Your task to perform on an android device: toggle show notifications on the lock screen Image 0: 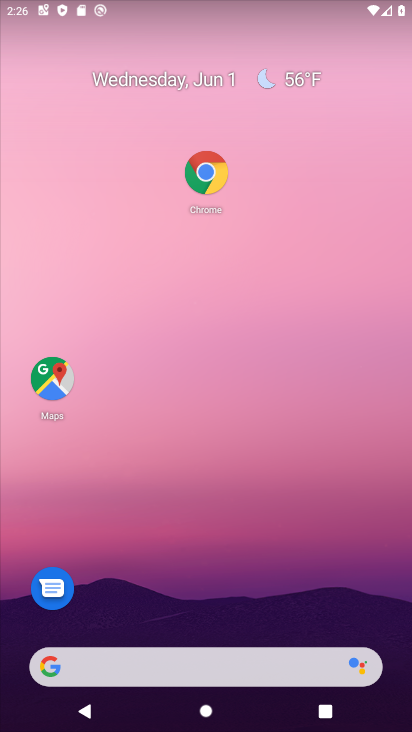
Step 0: drag from (214, 599) to (206, 8)
Your task to perform on an android device: toggle show notifications on the lock screen Image 1: 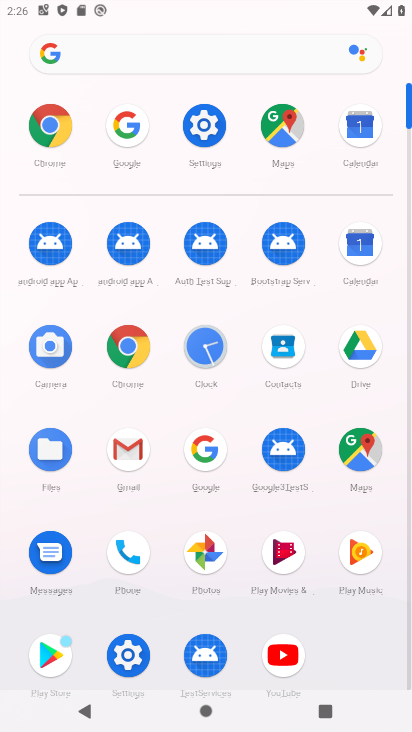
Step 1: click (202, 108)
Your task to perform on an android device: toggle show notifications on the lock screen Image 2: 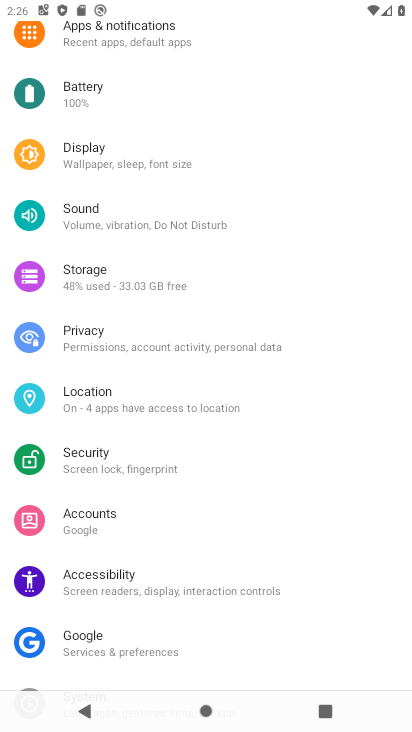
Step 2: drag from (182, 186) to (198, 363)
Your task to perform on an android device: toggle show notifications on the lock screen Image 3: 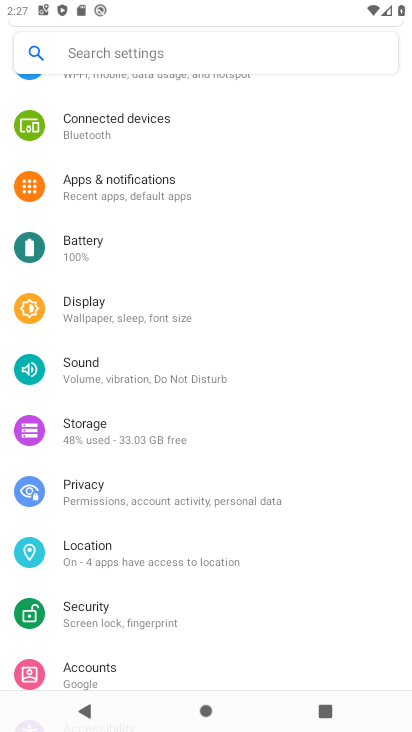
Step 3: click (120, 182)
Your task to perform on an android device: toggle show notifications on the lock screen Image 4: 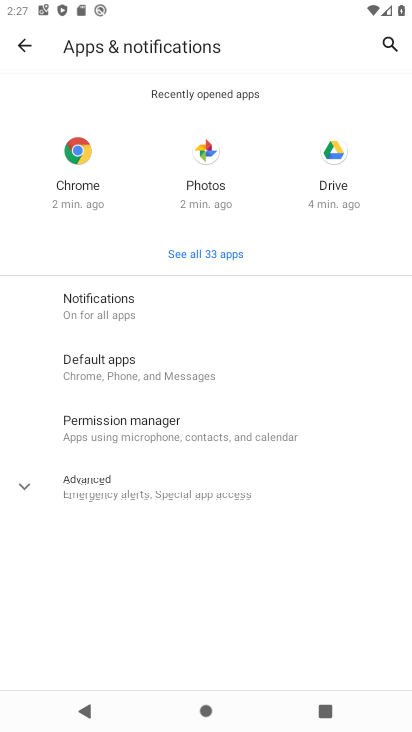
Step 4: click (116, 309)
Your task to perform on an android device: toggle show notifications on the lock screen Image 5: 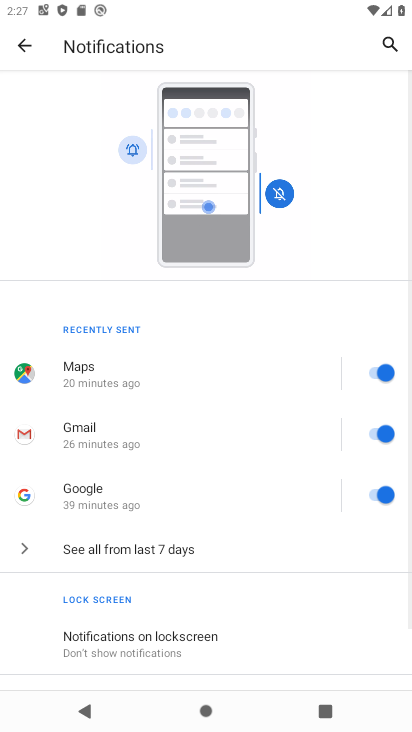
Step 5: drag from (135, 605) to (127, 337)
Your task to perform on an android device: toggle show notifications on the lock screen Image 6: 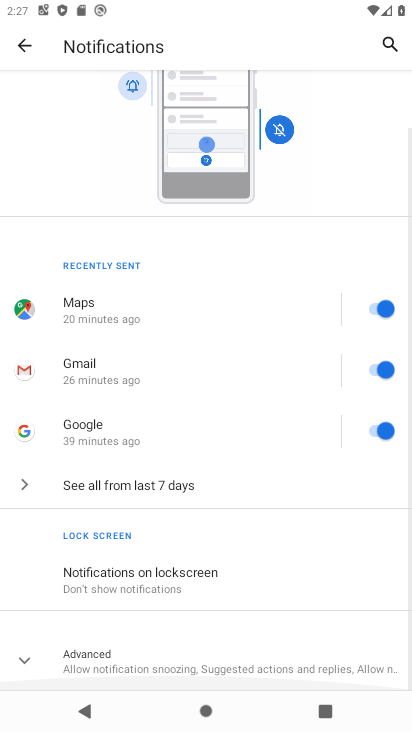
Step 6: click (113, 564)
Your task to perform on an android device: toggle show notifications on the lock screen Image 7: 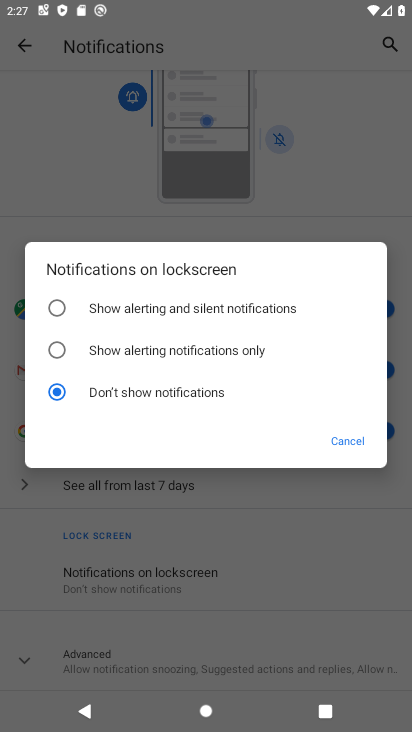
Step 7: click (67, 308)
Your task to perform on an android device: toggle show notifications on the lock screen Image 8: 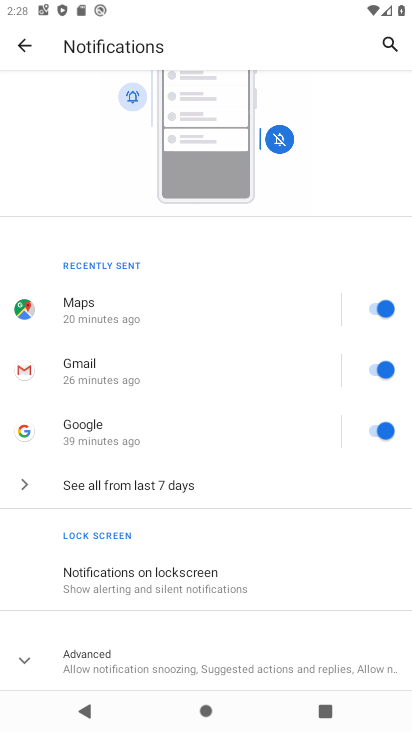
Step 8: task complete